Your task to perform on an android device: check storage Image 0: 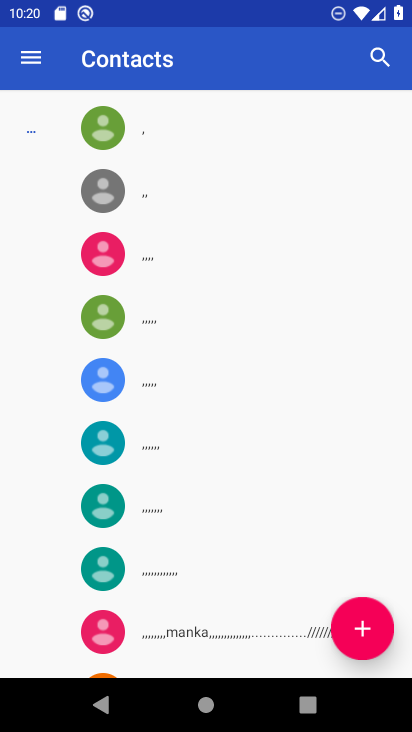
Step 0: press home button
Your task to perform on an android device: check storage Image 1: 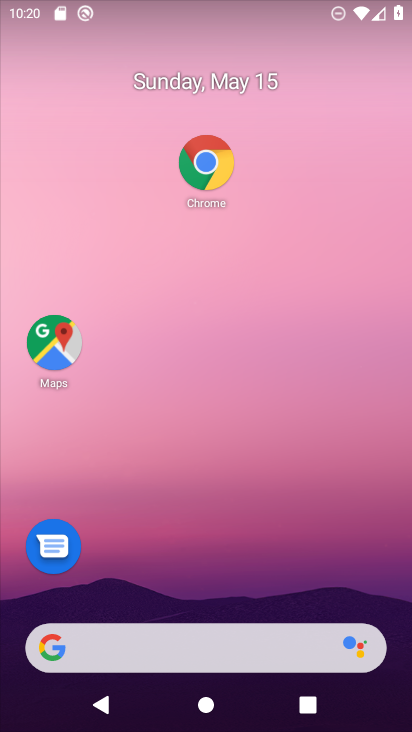
Step 1: drag from (232, 559) to (297, 213)
Your task to perform on an android device: check storage Image 2: 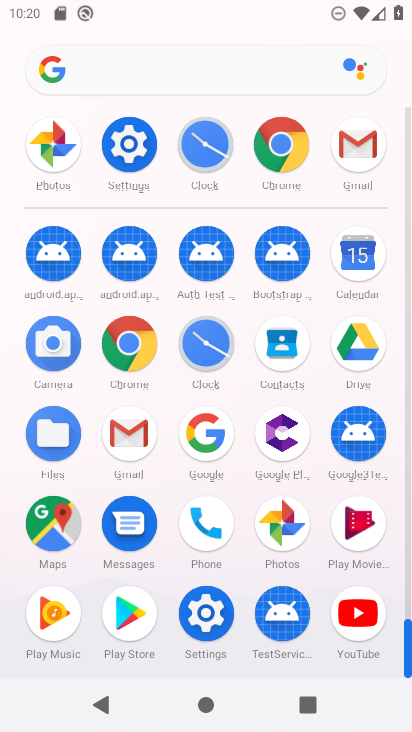
Step 2: click (125, 142)
Your task to perform on an android device: check storage Image 3: 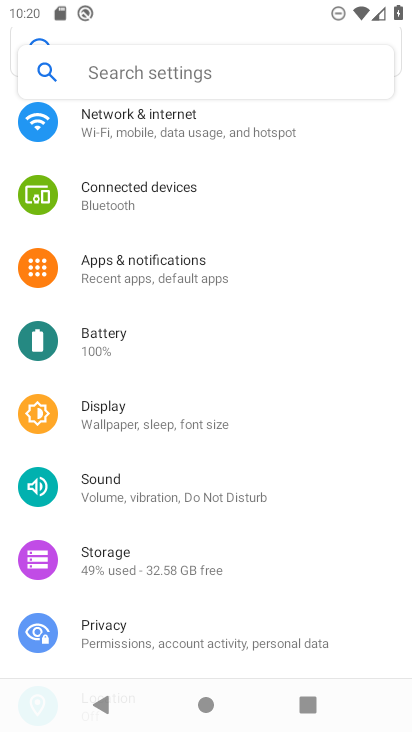
Step 3: click (128, 546)
Your task to perform on an android device: check storage Image 4: 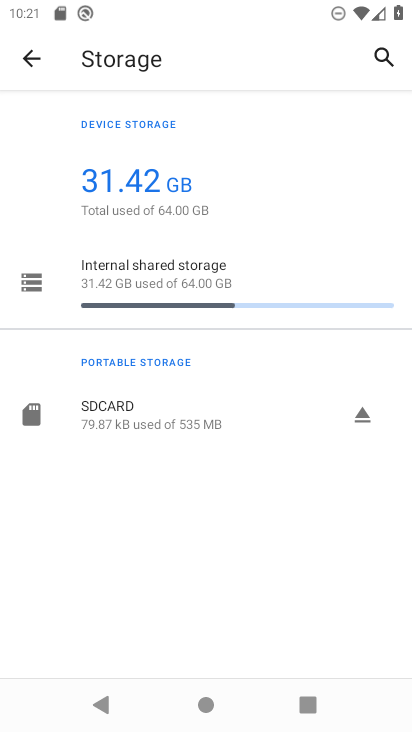
Step 4: task complete